Your task to perform on an android device: Open network settings Image 0: 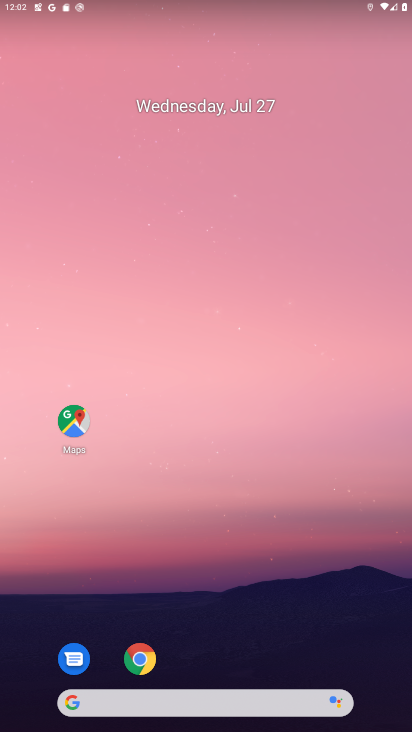
Step 0: drag from (289, 312) to (296, 28)
Your task to perform on an android device: Open network settings Image 1: 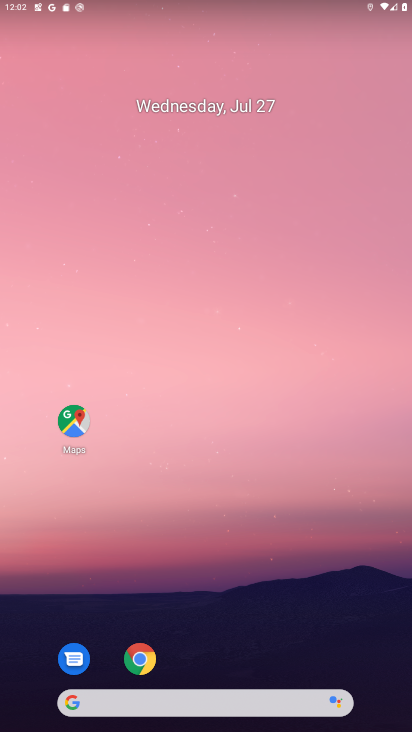
Step 1: drag from (180, 570) to (208, 9)
Your task to perform on an android device: Open network settings Image 2: 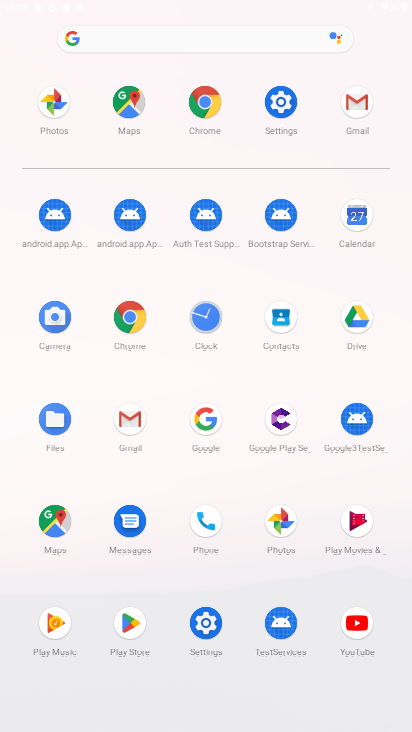
Step 2: click (283, 109)
Your task to perform on an android device: Open network settings Image 3: 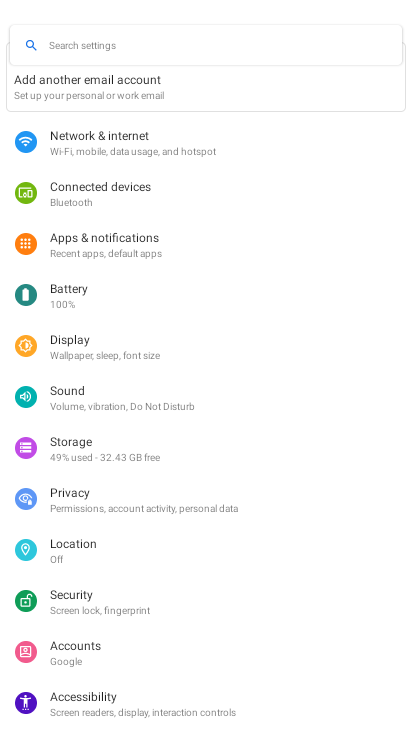
Step 3: click (221, 146)
Your task to perform on an android device: Open network settings Image 4: 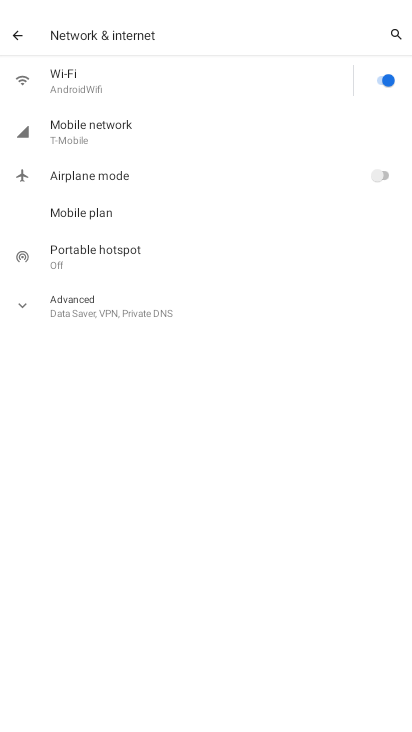
Step 4: task complete